Your task to perform on an android device: delete the emails in spam in the gmail app Image 0: 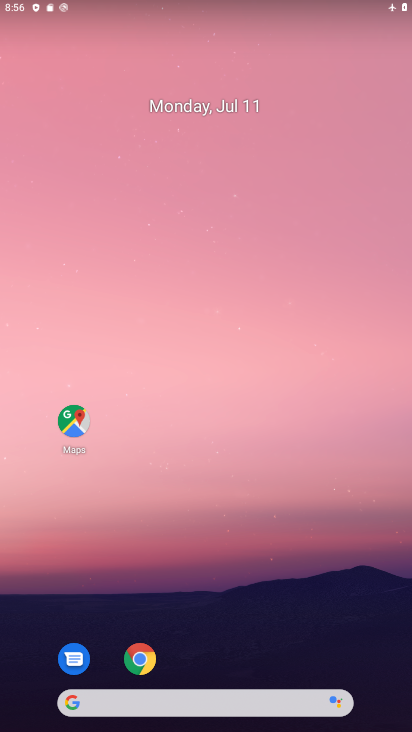
Step 0: drag from (202, 549) to (202, 237)
Your task to perform on an android device: delete the emails in spam in the gmail app Image 1: 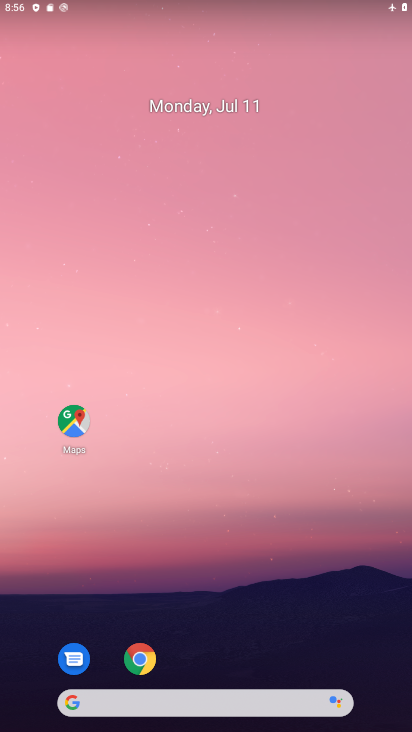
Step 1: drag from (218, 660) to (223, 179)
Your task to perform on an android device: delete the emails in spam in the gmail app Image 2: 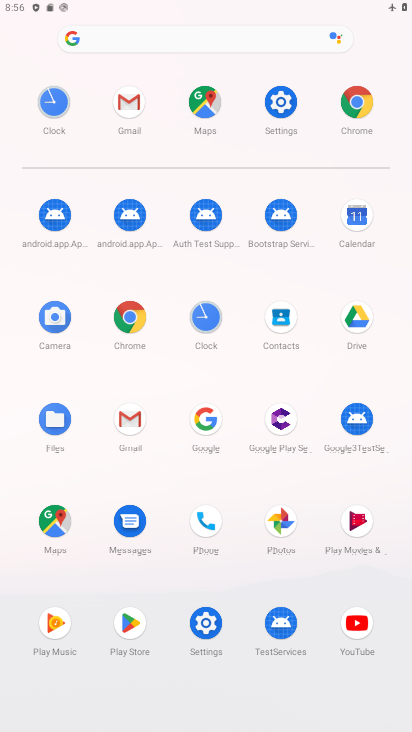
Step 2: click (133, 114)
Your task to perform on an android device: delete the emails in spam in the gmail app Image 3: 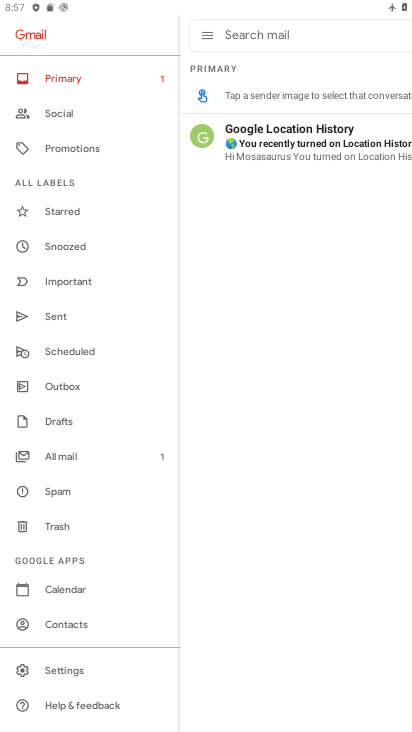
Step 3: click (80, 496)
Your task to perform on an android device: delete the emails in spam in the gmail app Image 4: 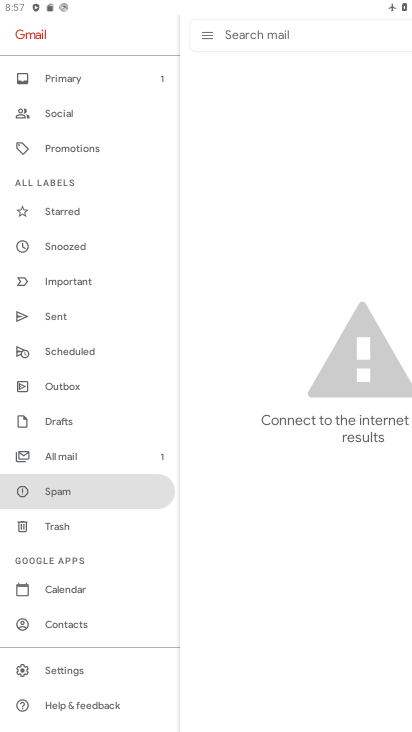
Step 4: task complete